Your task to perform on an android device: toggle javascript in the chrome app Image 0: 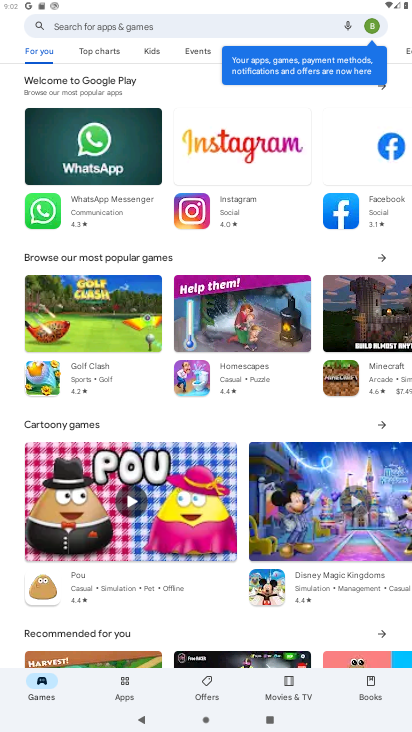
Step 0: press home button
Your task to perform on an android device: toggle javascript in the chrome app Image 1: 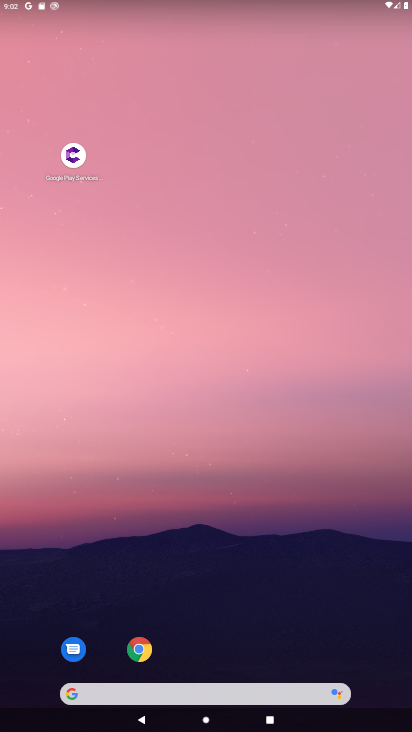
Step 1: click (133, 646)
Your task to perform on an android device: toggle javascript in the chrome app Image 2: 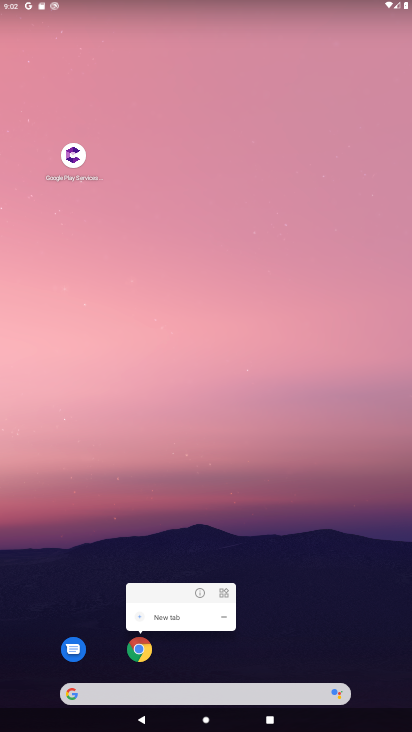
Step 2: click (142, 657)
Your task to perform on an android device: toggle javascript in the chrome app Image 3: 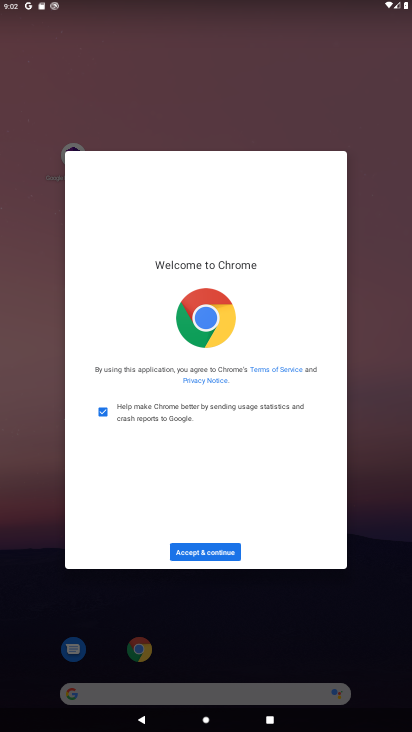
Step 3: click (193, 549)
Your task to perform on an android device: toggle javascript in the chrome app Image 4: 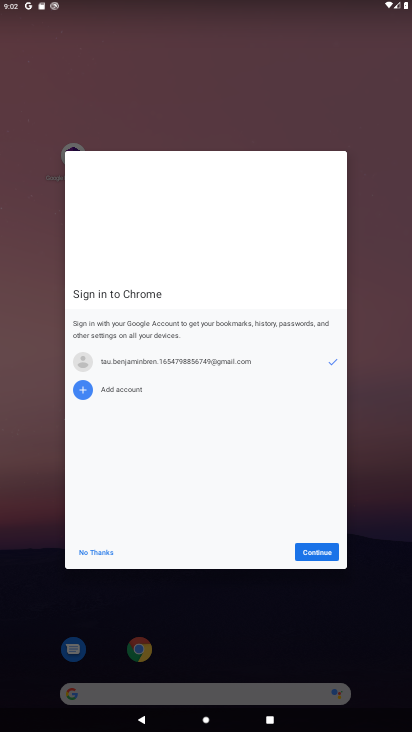
Step 4: click (324, 554)
Your task to perform on an android device: toggle javascript in the chrome app Image 5: 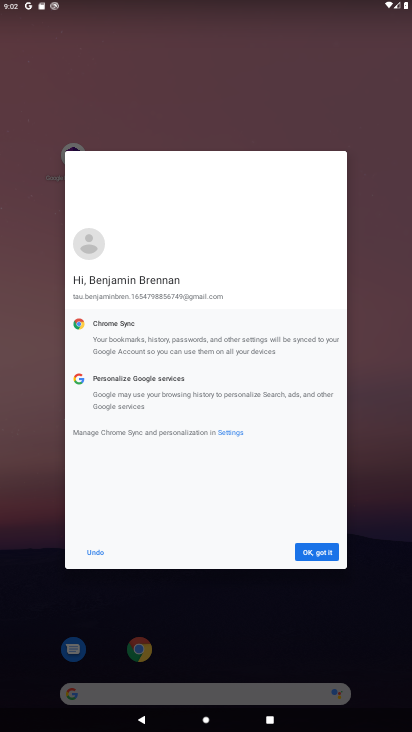
Step 5: click (322, 554)
Your task to perform on an android device: toggle javascript in the chrome app Image 6: 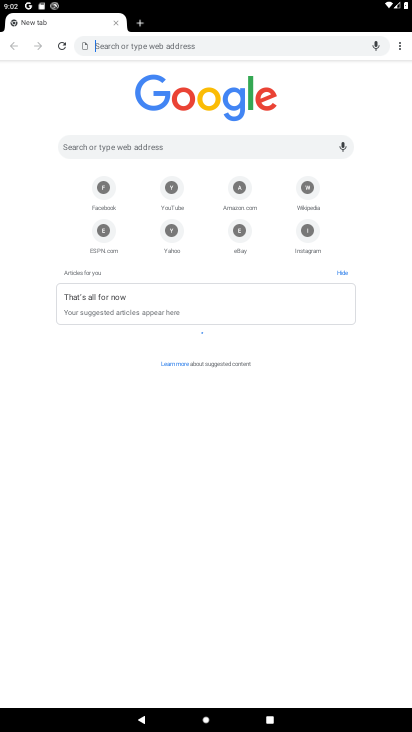
Step 6: click (402, 44)
Your task to perform on an android device: toggle javascript in the chrome app Image 7: 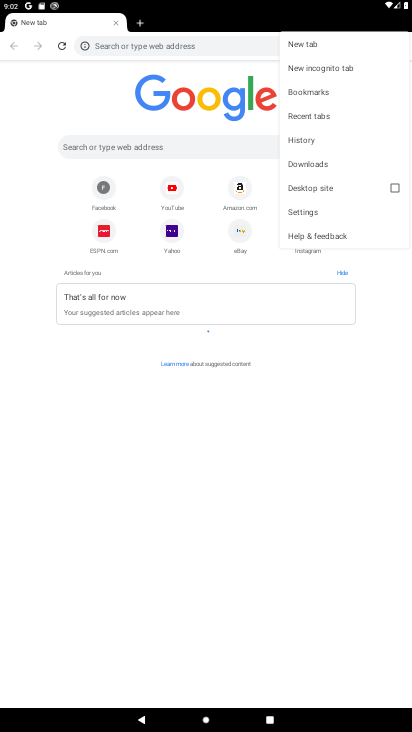
Step 7: click (302, 202)
Your task to perform on an android device: toggle javascript in the chrome app Image 8: 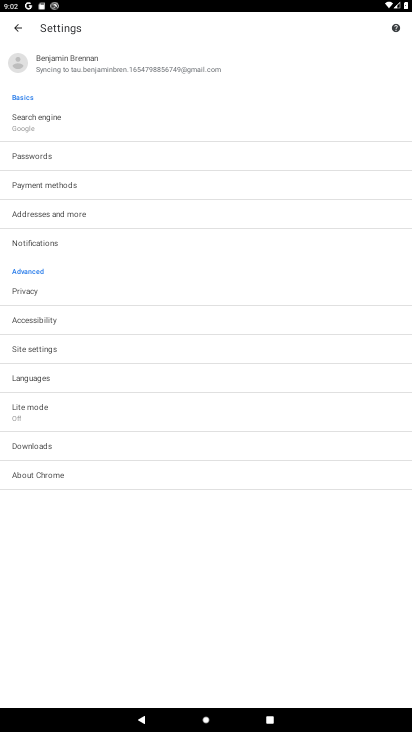
Step 8: click (38, 348)
Your task to perform on an android device: toggle javascript in the chrome app Image 9: 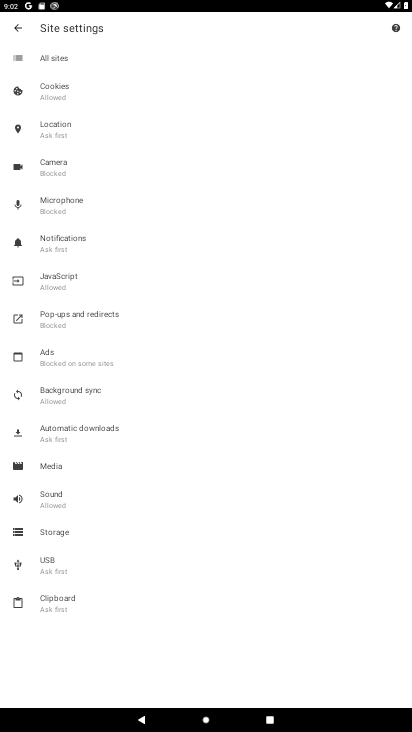
Step 9: click (89, 278)
Your task to perform on an android device: toggle javascript in the chrome app Image 10: 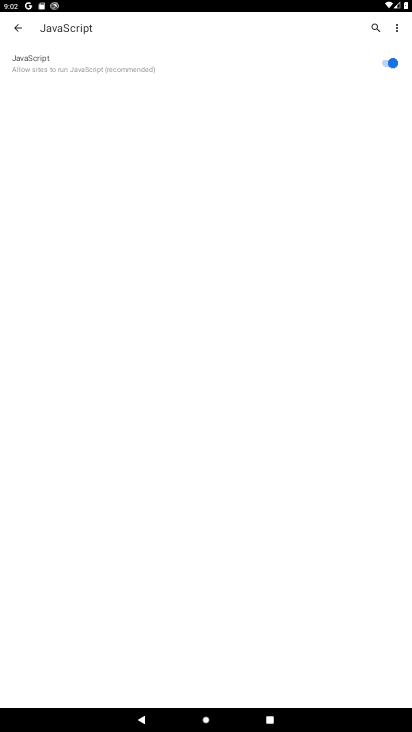
Step 10: click (389, 60)
Your task to perform on an android device: toggle javascript in the chrome app Image 11: 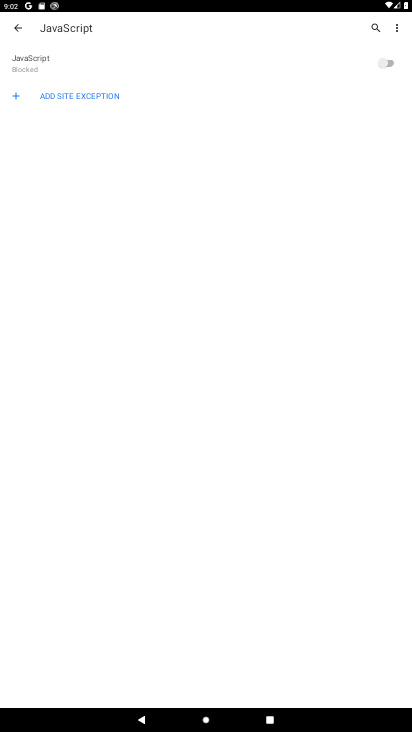
Step 11: task complete